Your task to perform on an android device: turn off sleep mode Image 0: 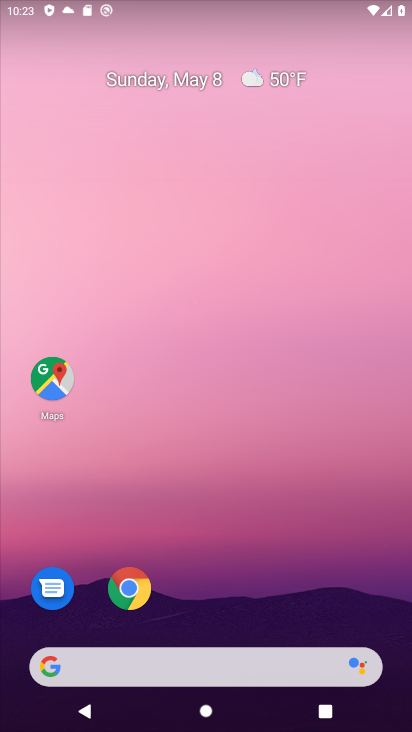
Step 0: drag from (253, 535) to (165, 0)
Your task to perform on an android device: turn off sleep mode Image 1: 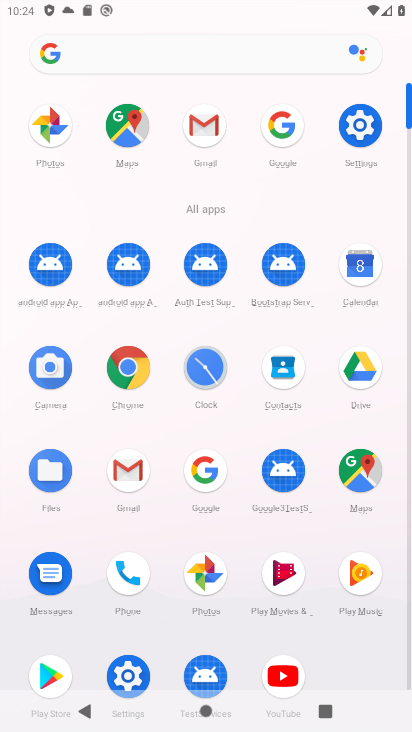
Step 1: click (363, 137)
Your task to perform on an android device: turn off sleep mode Image 2: 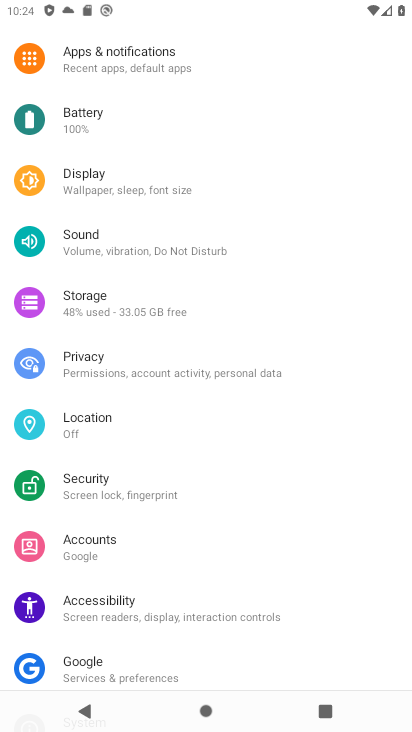
Step 2: click (124, 170)
Your task to perform on an android device: turn off sleep mode Image 3: 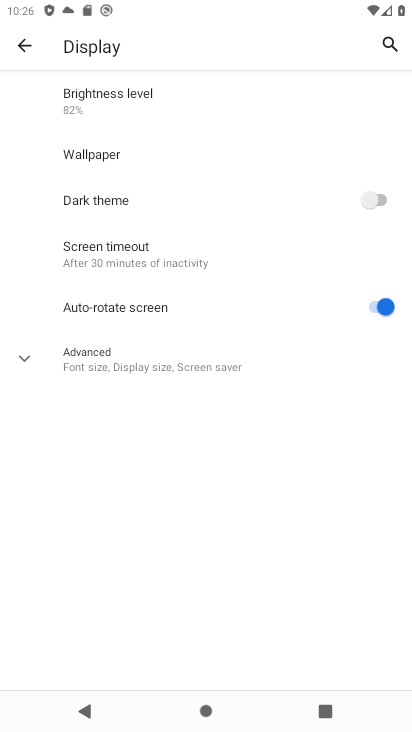
Step 3: click (63, 418)
Your task to perform on an android device: turn off sleep mode Image 4: 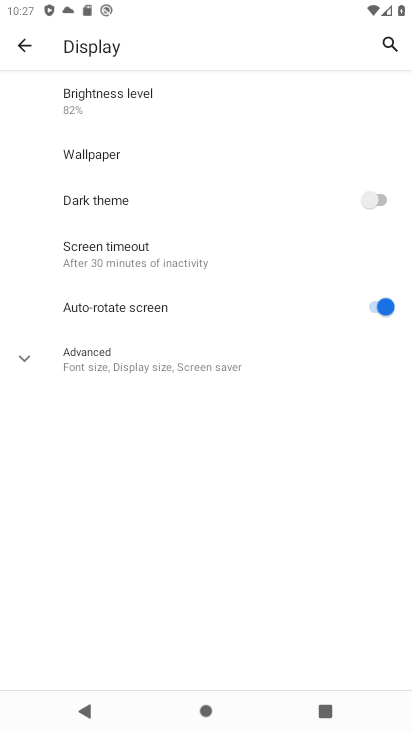
Step 4: task complete